Your task to perform on an android device: turn off smart reply in the gmail app Image 0: 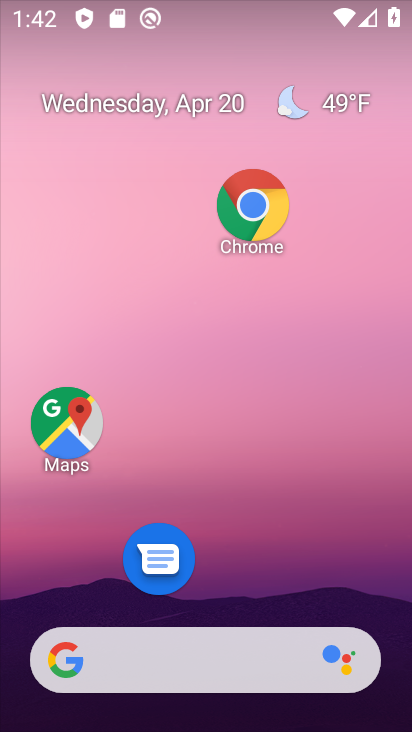
Step 0: drag from (214, 625) to (193, 224)
Your task to perform on an android device: turn off smart reply in the gmail app Image 1: 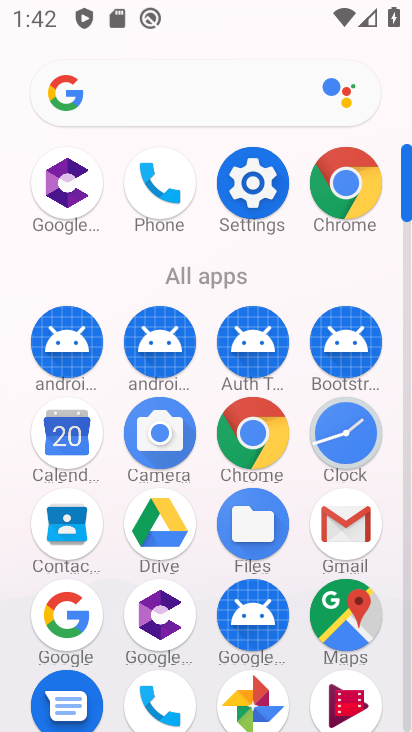
Step 1: click (351, 539)
Your task to perform on an android device: turn off smart reply in the gmail app Image 2: 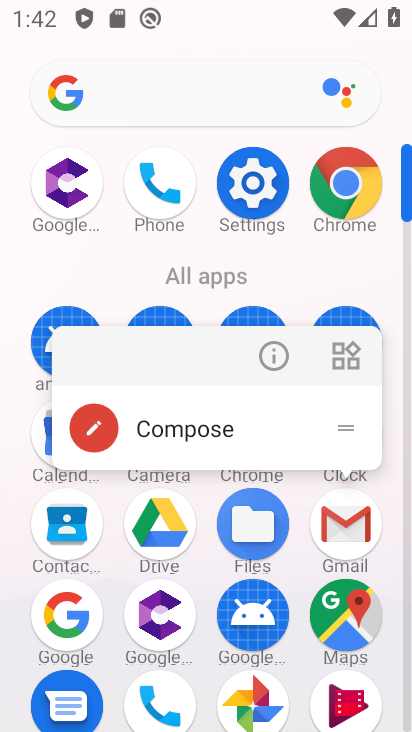
Step 2: click (341, 524)
Your task to perform on an android device: turn off smart reply in the gmail app Image 3: 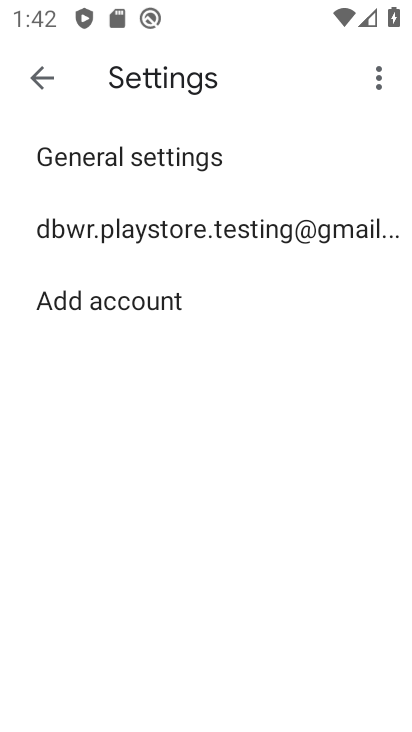
Step 3: click (111, 227)
Your task to perform on an android device: turn off smart reply in the gmail app Image 4: 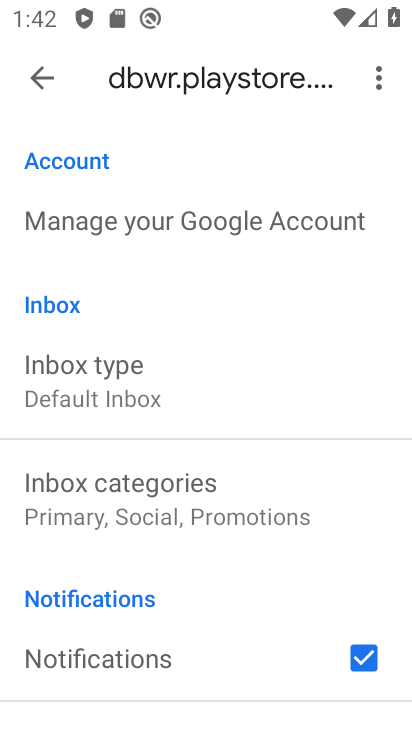
Step 4: task complete